Your task to perform on an android device: Is it going to rain today? Image 0: 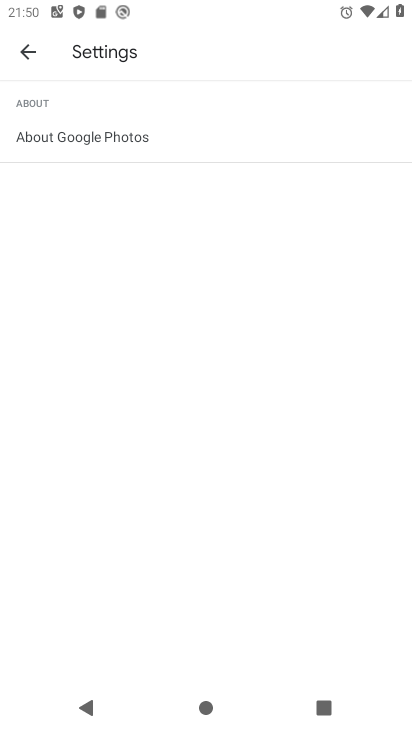
Step 0: press home button
Your task to perform on an android device: Is it going to rain today? Image 1: 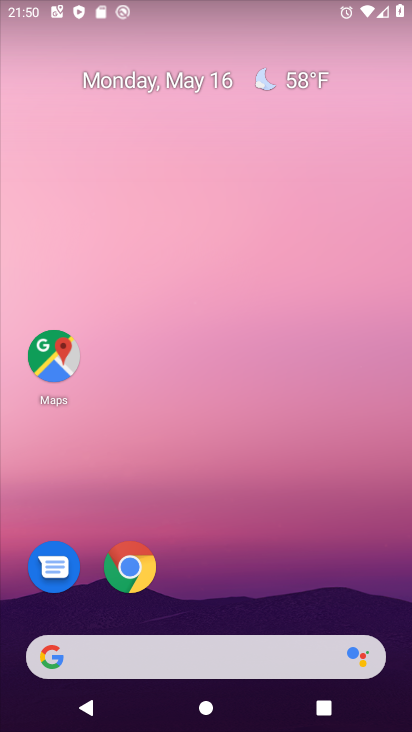
Step 1: drag from (233, 577) to (291, 241)
Your task to perform on an android device: Is it going to rain today? Image 2: 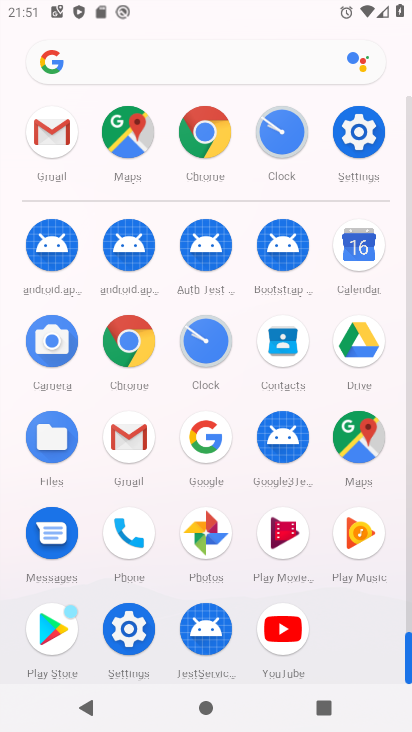
Step 2: click (121, 334)
Your task to perform on an android device: Is it going to rain today? Image 3: 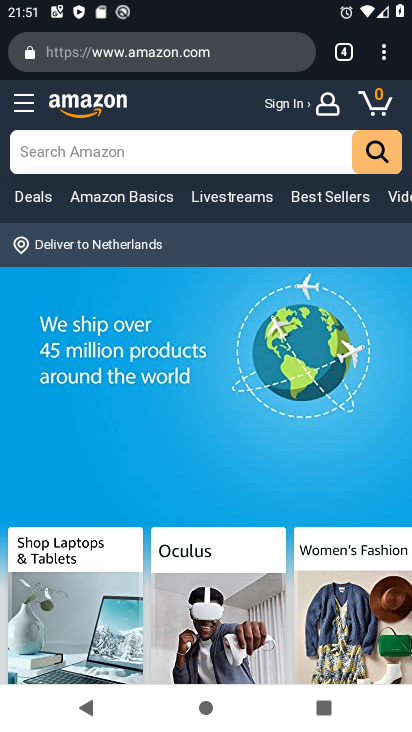
Step 3: click (372, 45)
Your task to perform on an android device: Is it going to rain today? Image 4: 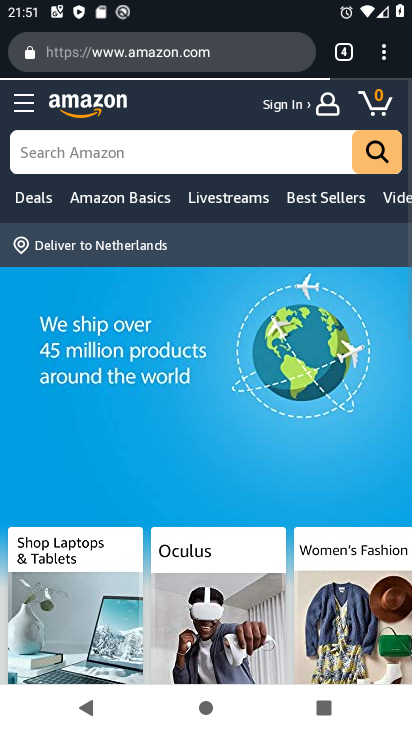
Step 4: click (389, 57)
Your task to perform on an android device: Is it going to rain today? Image 5: 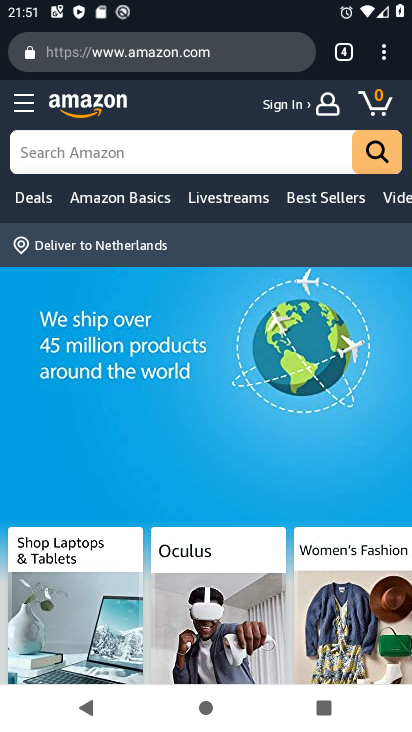
Step 5: click (377, 53)
Your task to perform on an android device: Is it going to rain today? Image 6: 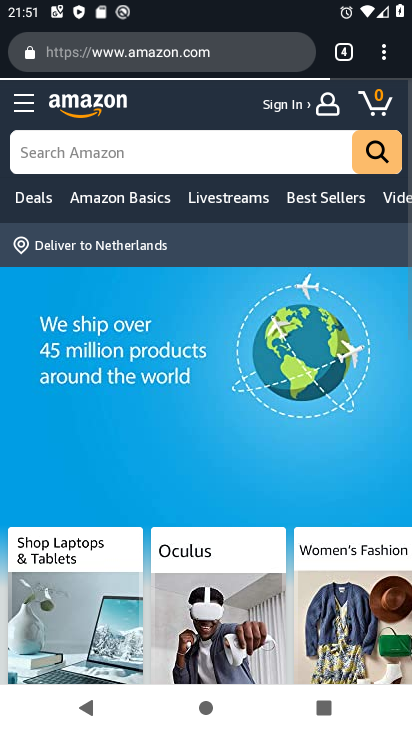
Step 6: click (378, 56)
Your task to perform on an android device: Is it going to rain today? Image 7: 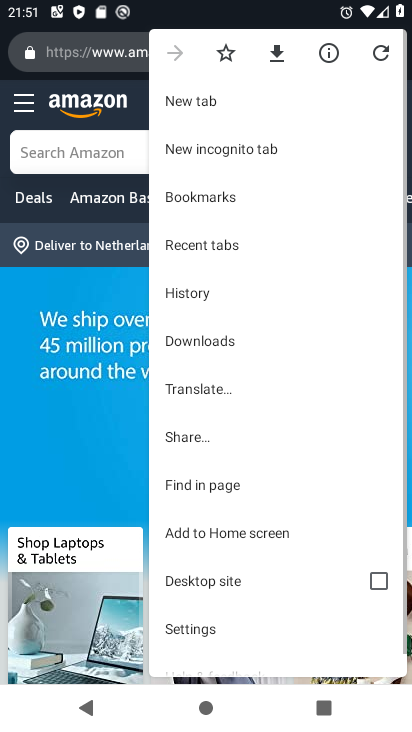
Step 7: click (228, 98)
Your task to perform on an android device: Is it going to rain today? Image 8: 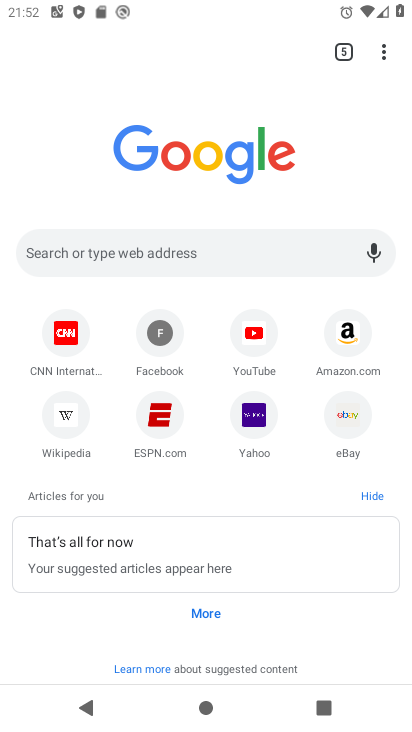
Step 8: click (253, 252)
Your task to perform on an android device: Is it going to rain today? Image 9: 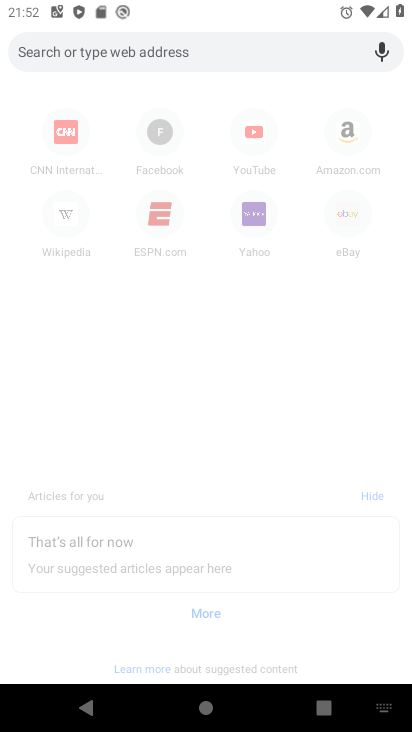
Step 9: type "Is it going to rain today?"
Your task to perform on an android device: Is it going to rain today? Image 10: 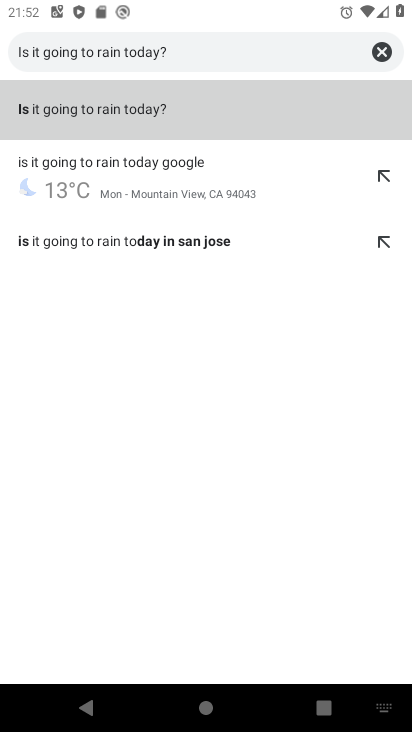
Step 10: click (122, 99)
Your task to perform on an android device: Is it going to rain today? Image 11: 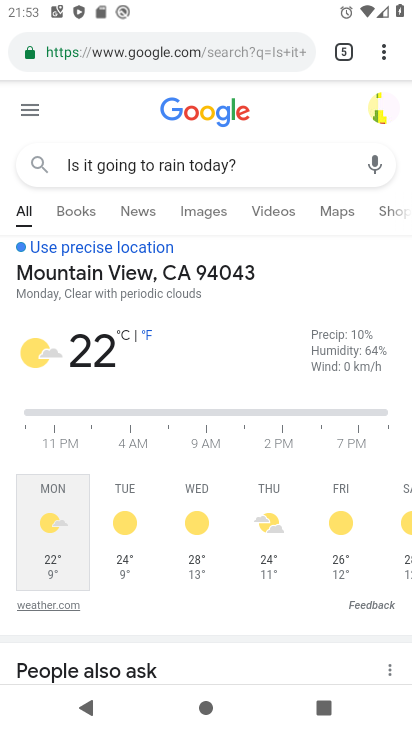
Step 11: task complete